Your task to perform on an android device: turn on notifications settings in the gmail app Image 0: 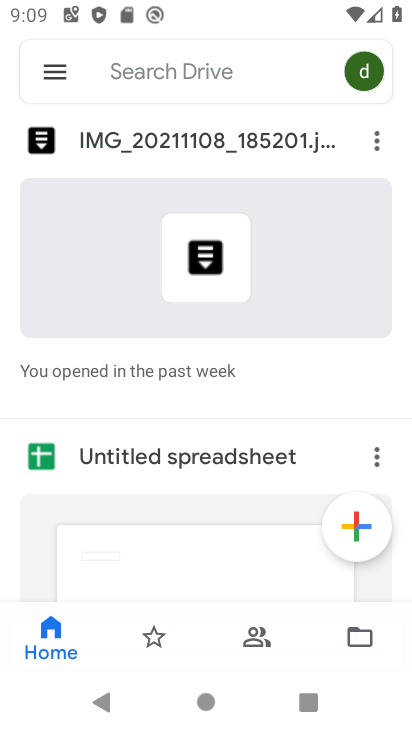
Step 0: press home button
Your task to perform on an android device: turn on notifications settings in the gmail app Image 1: 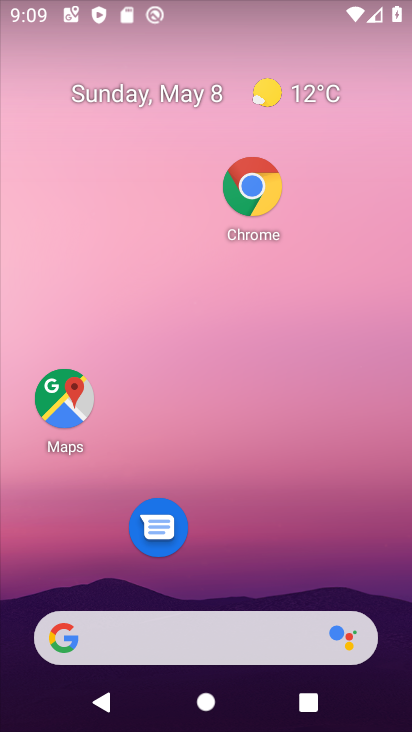
Step 1: drag from (292, 560) to (301, 252)
Your task to perform on an android device: turn on notifications settings in the gmail app Image 2: 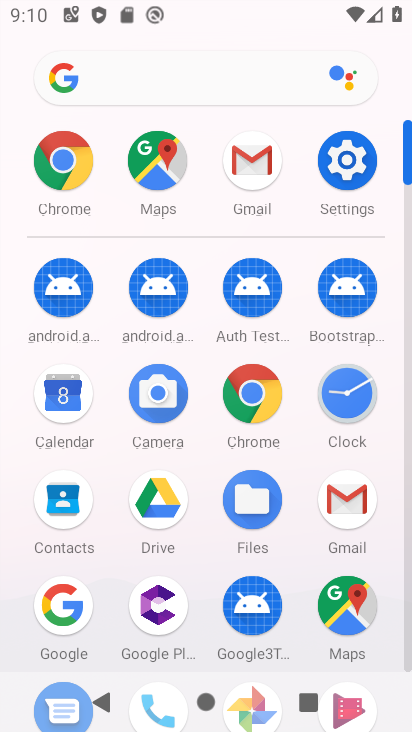
Step 2: click (353, 486)
Your task to perform on an android device: turn on notifications settings in the gmail app Image 3: 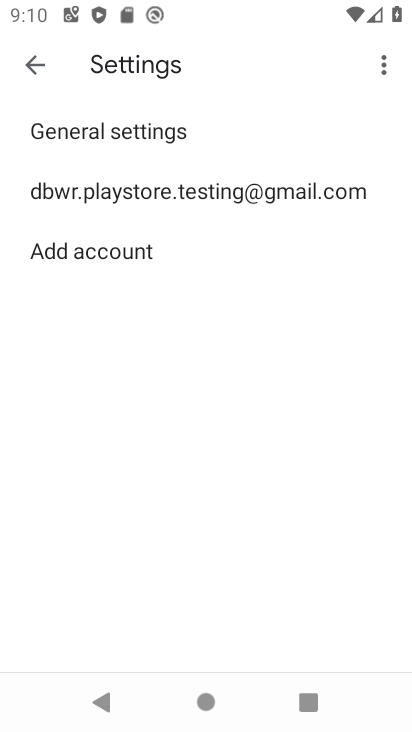
Step 3: click (123, 199)
Your task to perform on an android device: turn on notifications settings in the gmail app Image 4: 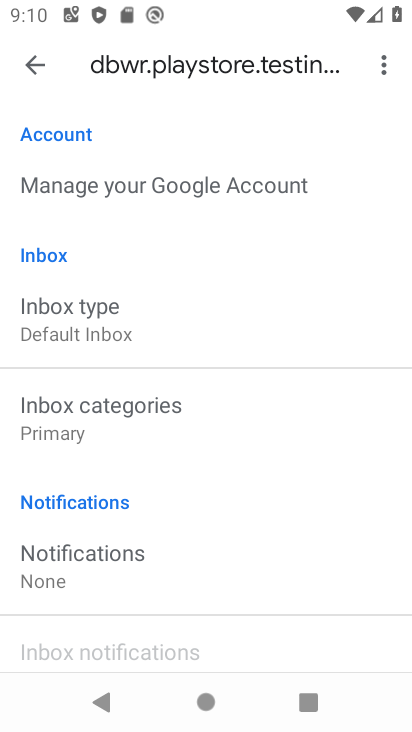
Step 4: click (72, 565)
Your task to perform on an android device: turn on notifications settings in the gmail app Image 5: 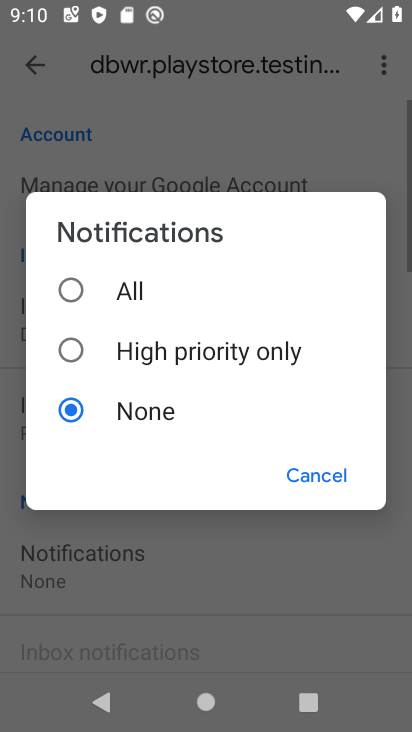
Step 5: click (68, 286)
Your task to perform on an android device: turn on notifications settings in the gmail app Image 6: 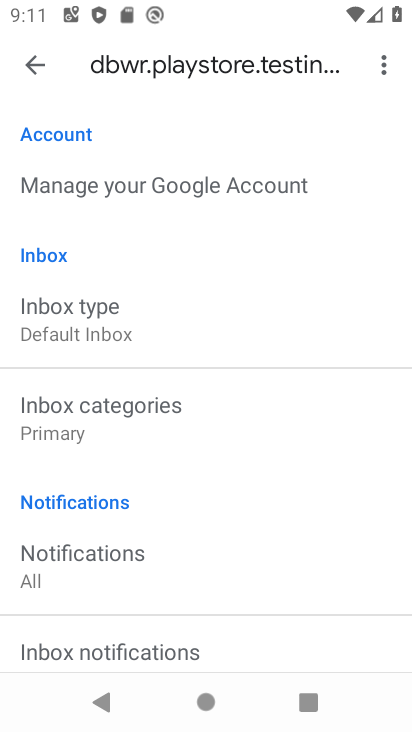
Step 6: task complete